Your task to perform on an android device: check google app version Image 0: 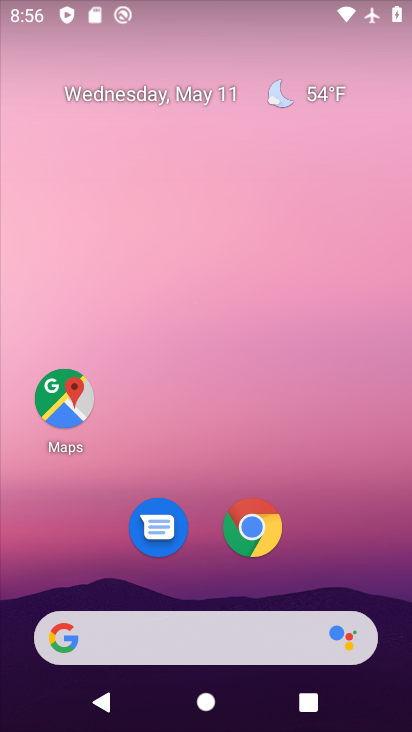
Step 0: drag from (304, 564) to (324, 159)
Your task to perform on an android device: check google app version Image 1: 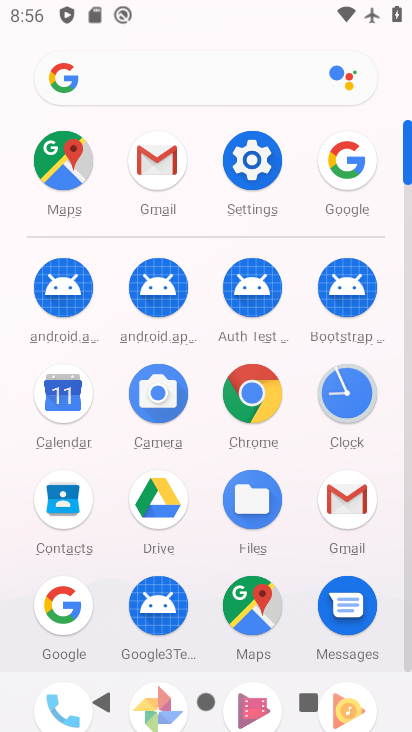
Step 1: click (61, 627)
Your task to perform on an android device: check google app version Image 2: 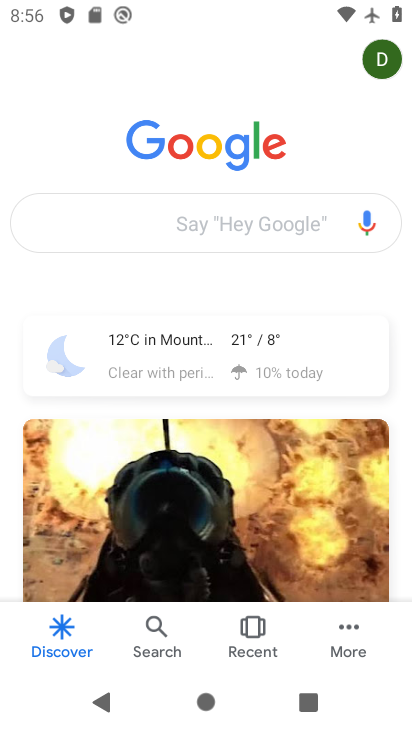
Step 2: click (361, 641)
Your task to perform on an android device: check google app version Image 3: 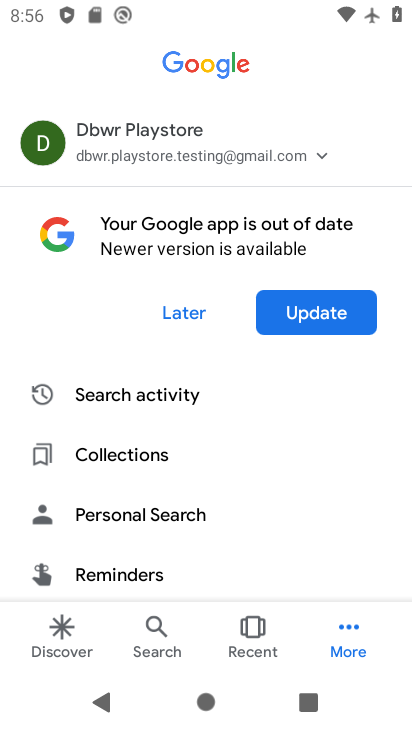
Step 3: drag from (199, 558) to (226, 153)
Your task to perform on an android device: check google app version Image 4: 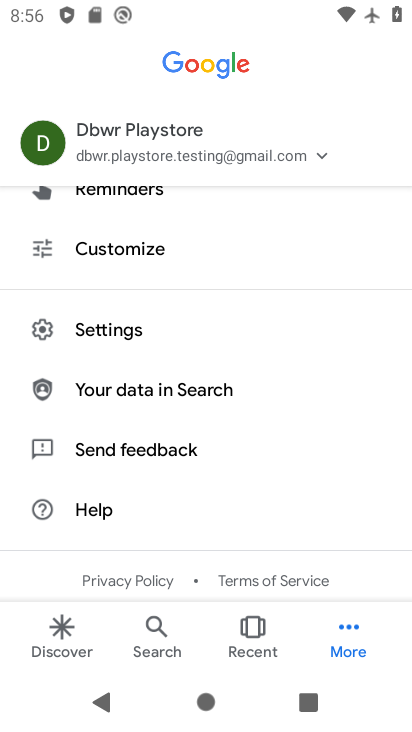
Step 4: click (119, 335)
Your task to perform on an android device: check google app version Image 5: 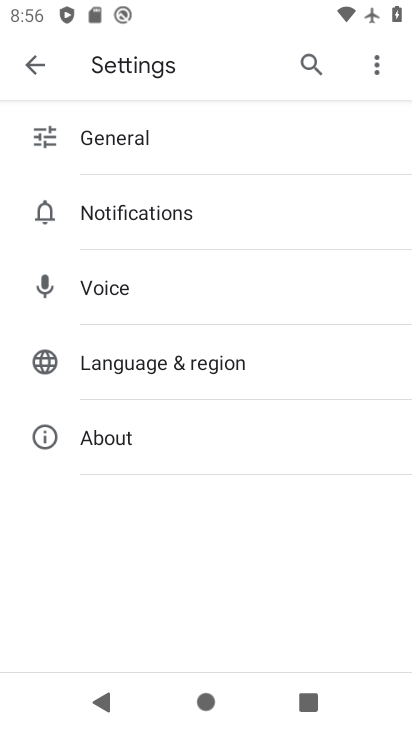
Step 5: click (98, 434)
Your task to perform on an android device: check google app version Image 6: 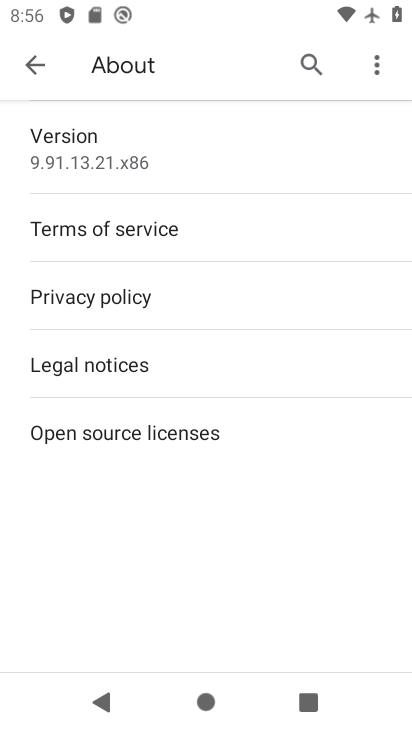
Step 6: task complete